Your task to perform on an android device: turn on data saver in the chrome app Image 0: 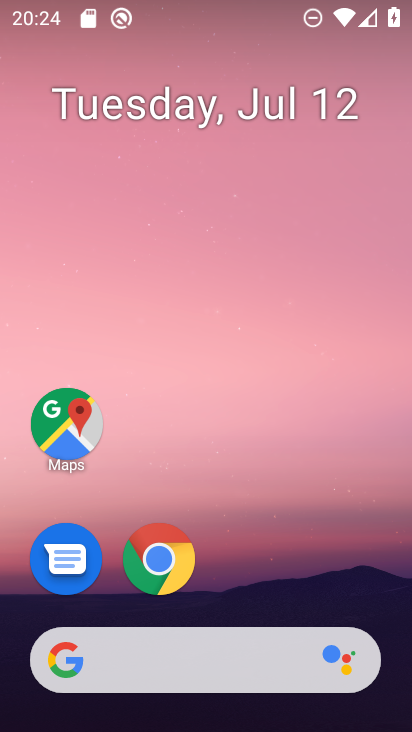
Step 0: drag from (368, 590) to (345, 130)
Your task to perform on an android device: turn on data saver in the chrome app Image 1: 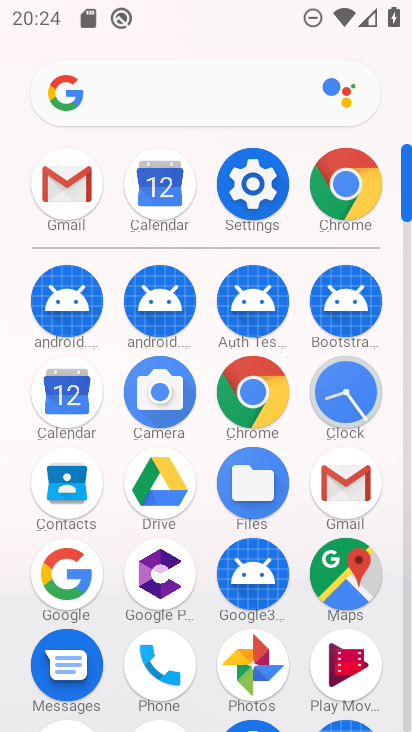
Step 1: click (252, 391)
Your task to perform on an android device: turn on data saver in the chrome app Image 2: 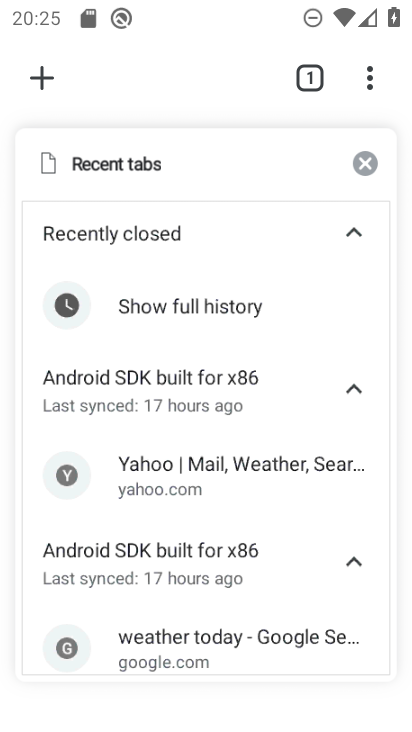
Step 2: press back button
Your task to perform on an android device: turn on data saver in the chrome app Image 3: 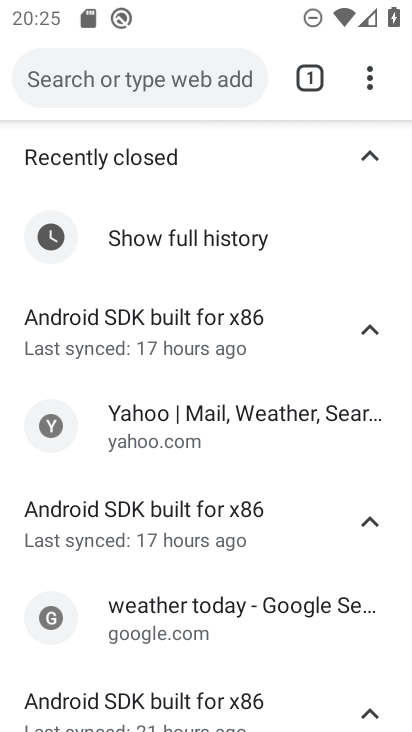
Step 3: click (371, 87)
Your task to perform on an android device: turn on data saver in the chrome app Image 4: 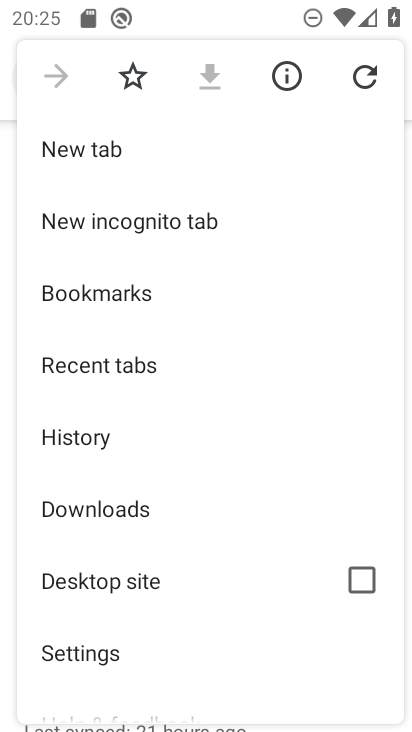
Step 4: drag from (306, 407) to (305, 305)
Your task to perform on an android device: turn on data saver in the chrome app Image 5: 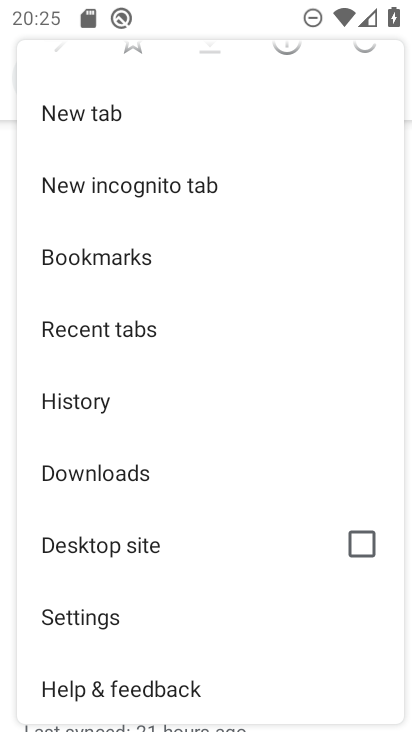
Step 5: click (192, 604)
Your task to perform on an android device: turn on data saver in the chrome app Image 6: 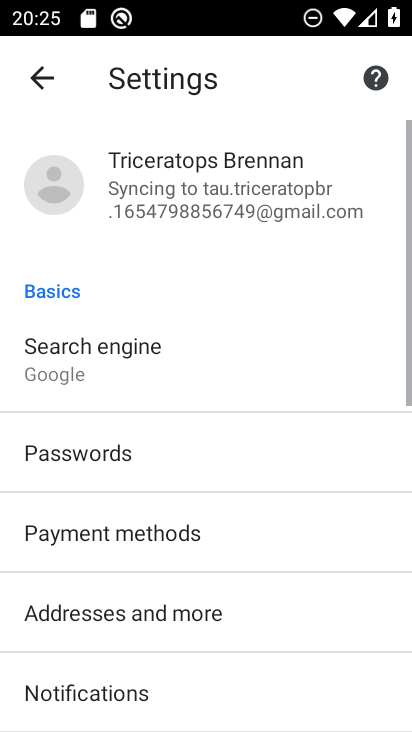
Step 6: drag from (280, 535) to (291, 447)
Your task to perform on an android device: turn on data saver in the chrome app Image 7: 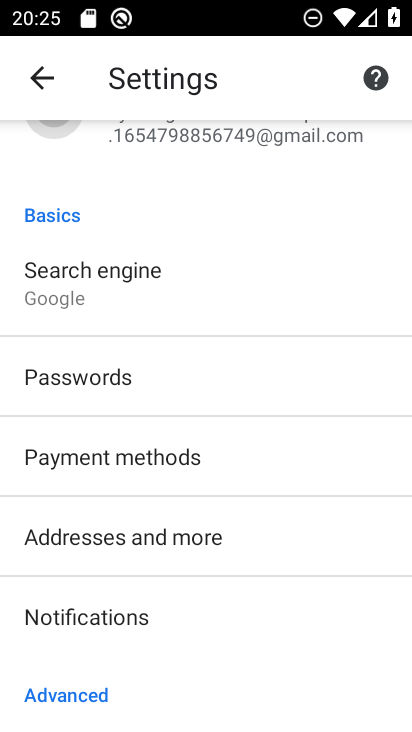
Step 7: drag from (316, 532) to (326, 445)
Your task to perform on an android device: turn on data saver in the chrome app Image 8: 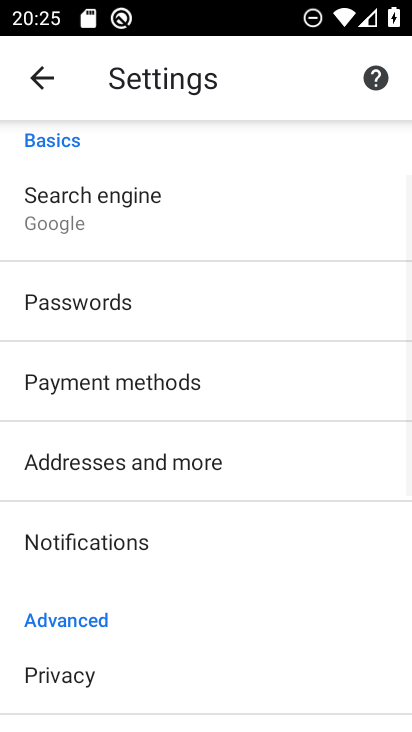
Step 8: drag from (327, 522) to (335, 427)
Your task to perform on an android device: turn on data saver in the chrome app Image 9: 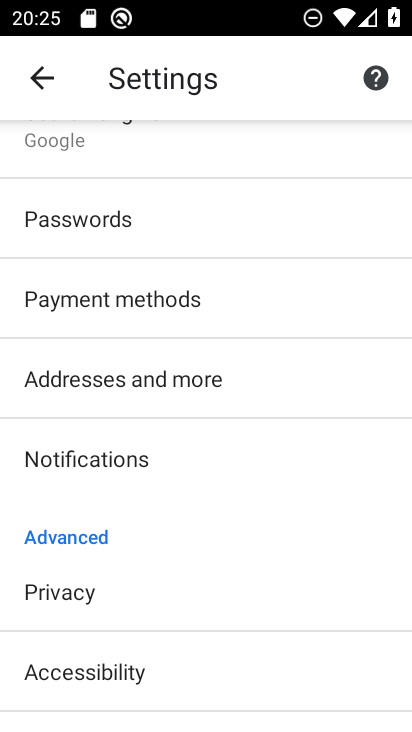
Step 9: drag from (339, 527) to (340, 430)
Your task to perform on an android device: turn on data saver in the chrome app Image 10: 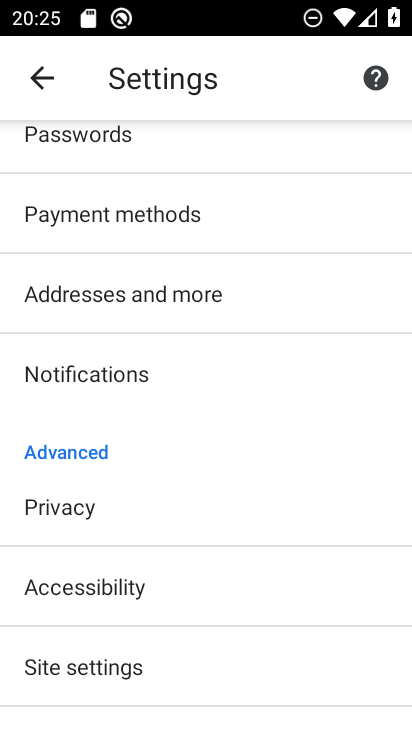
Step 10: drag from (337, 562) to (333, 460)
Your task to perform on an android device: turn on data saver in the chrome app Image 11: 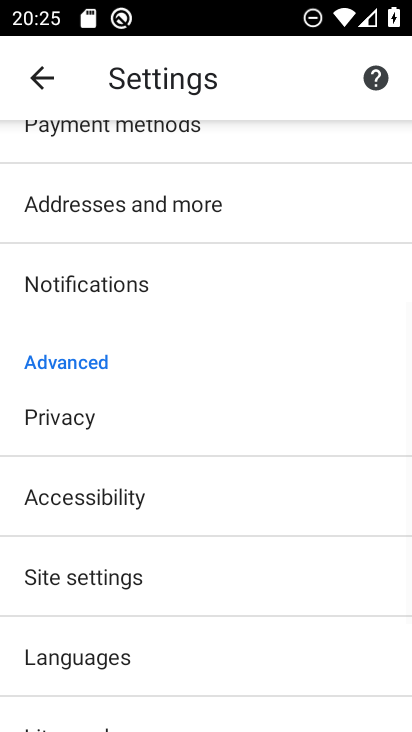
Step 11: drag from (328, 563) to (326, 459)
Your task to perform on an android device: turn on data saver in the chrome app Image 12: 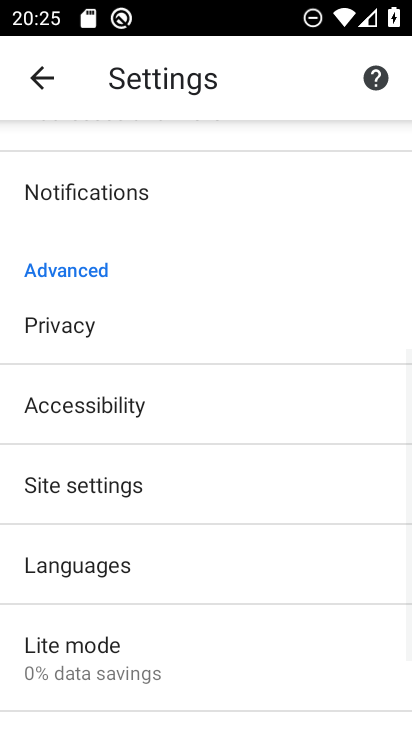
Step 12: drag from (325, 572) to (323, 483)
Your task to perform on an android device: turn on data saver in the chrome app Image 13: 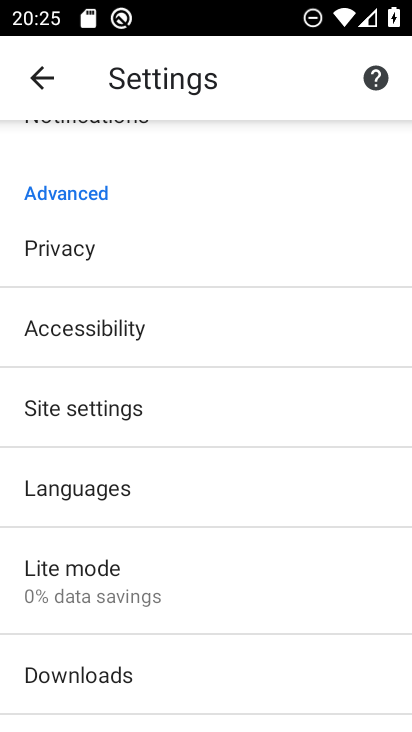
Step 13: drag from (310, 550) to (310, 411)
Your task to perform on an android device: turn on data saver in the chrome app Image 14: 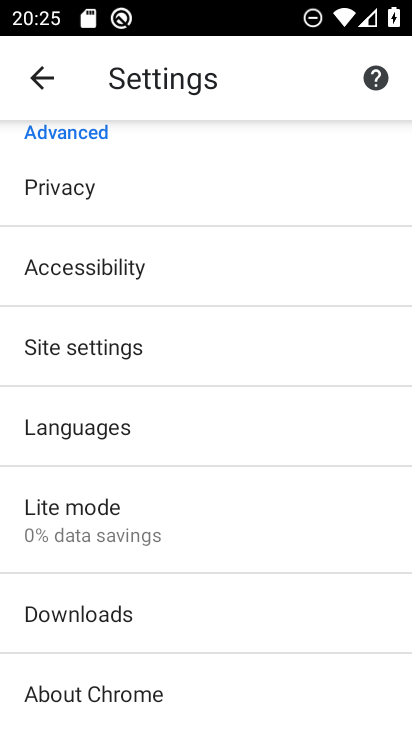
Step 14: click (305, 514)
Your task to perform on an android device: turn on data saver in the chrome app Image 15: 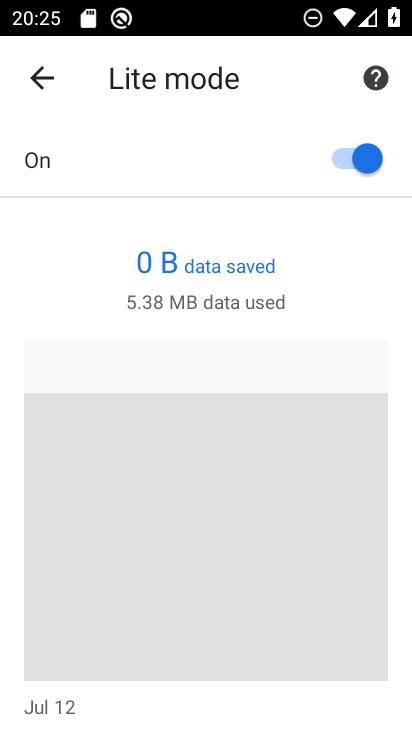
Step 15: task complete